Your task to perform on an android device: Open Google Chrome and click the shortcut for Amazon.com Image 0: 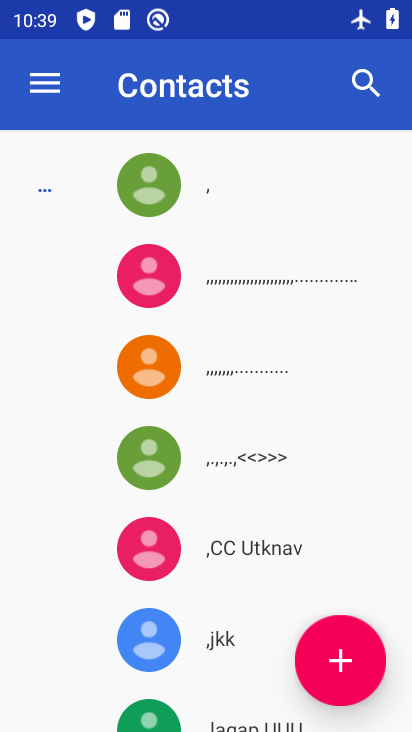
Step 0: press back button
Your task to perform on an android device: Open Google Chrome and click the shortcut for Amazon.com Image 1: 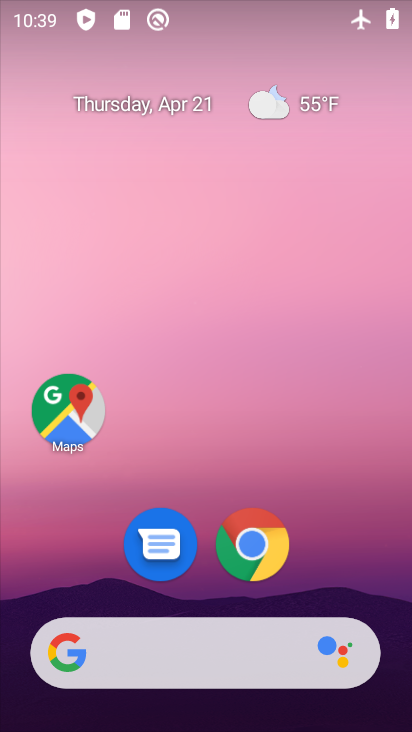
Step 1: drag from (327, 557) to (208, 45)
Your task to perform on an android device: Open Google Chrome and click the shortcut for Amazon.com Image 2: 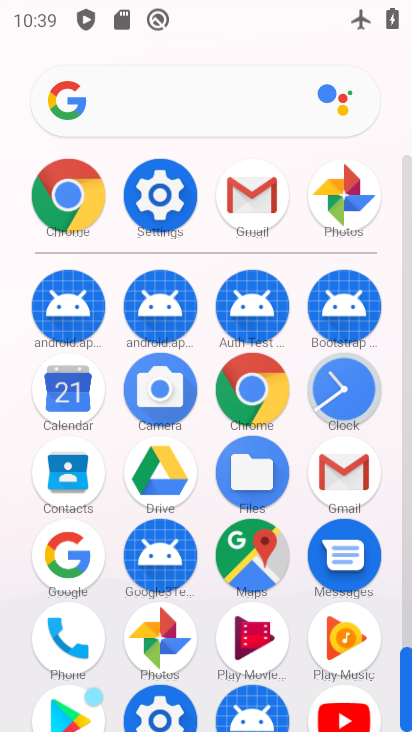
Step 2: drag from (9, 586) to (5, 343)
Your task to perform on an android device: Open Google Chrome and click the shortcut for Amazon.com Image 3: 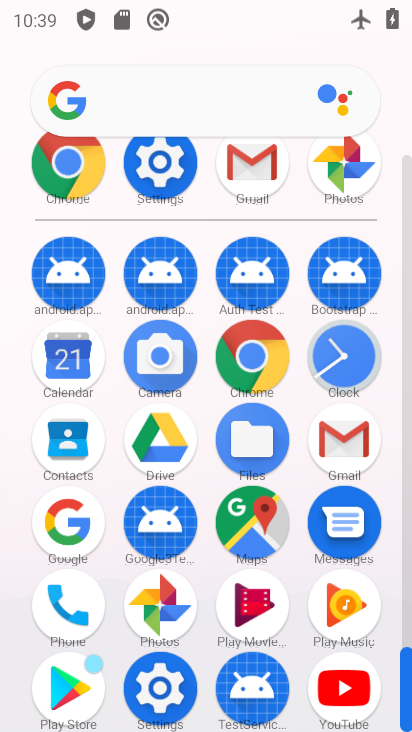
Step 3: click (65, 164)
Your task to perform on an android device: Open Google Chrome and click the shortcut for Amazon.com Image 4: 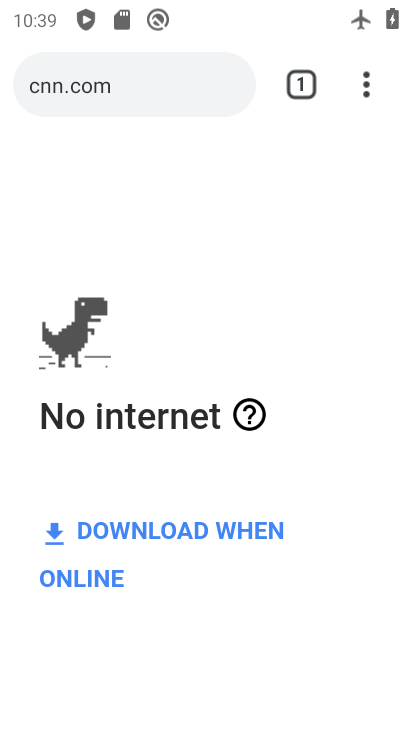
Step 4: type "Amazon.com"
Your task to perform on an android device: Open Google Chrome and click the shortcut for Amazon.com Image 5: 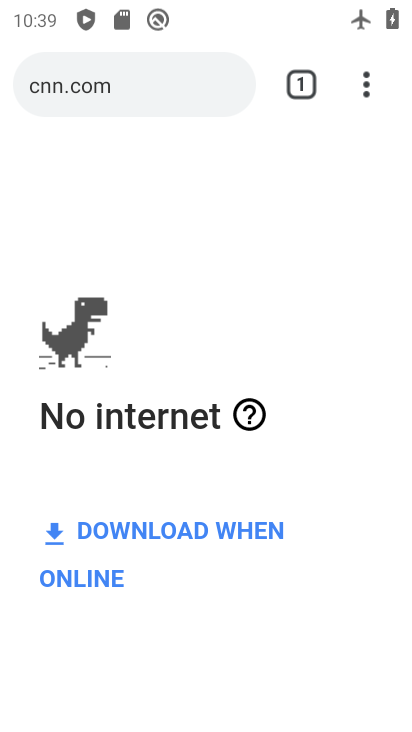
Step 5: type ""
Your task to perform on an android device: Open Google Chrome and click the shortcut for Amazon.com Image 6: 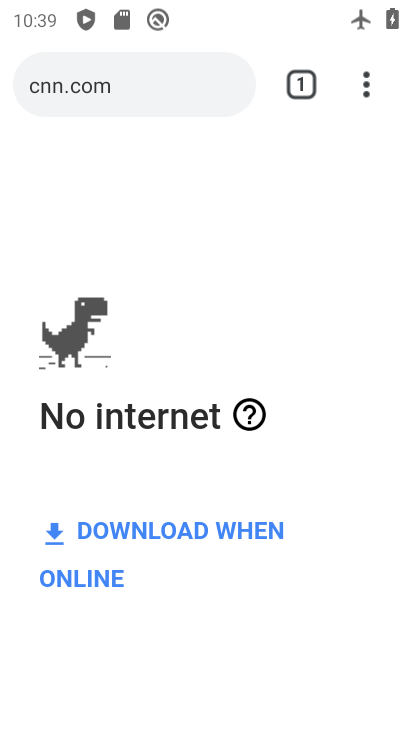
Step 6: click (154, 94)
Your task to perform on an android device: Open Google Chrome and click the shortcut for Amazon.com Image 7: 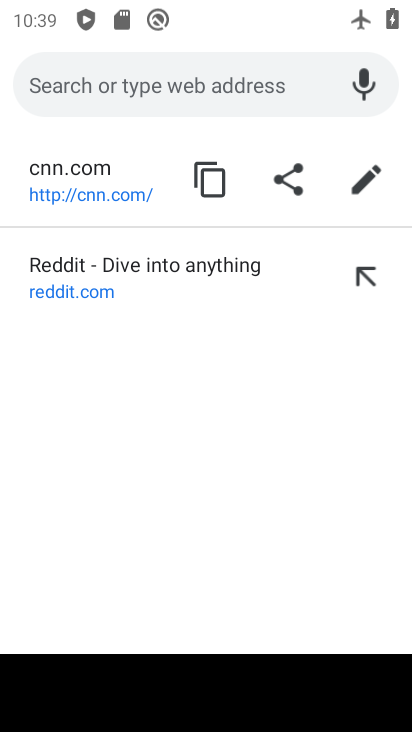
Step 7: type "Amazon.com"
Your task to perform on an android device: Open Google Chrome and click the shortcut for Amazon.com Image 8: 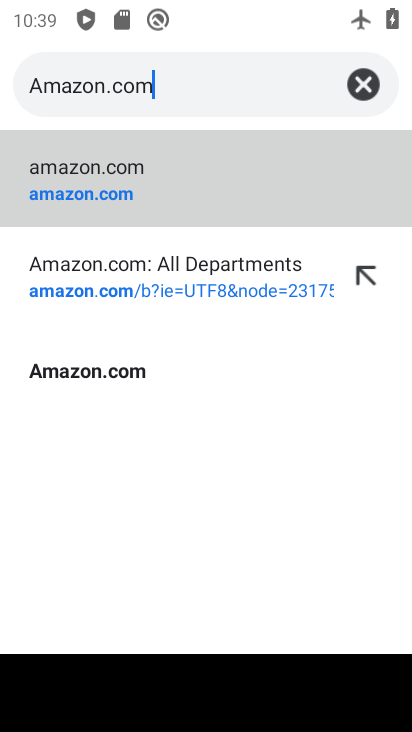
Step 8: type ""
Your task to perform on an android device: Open Google Chrome and click the shortcut for Amazon.com Image 9: 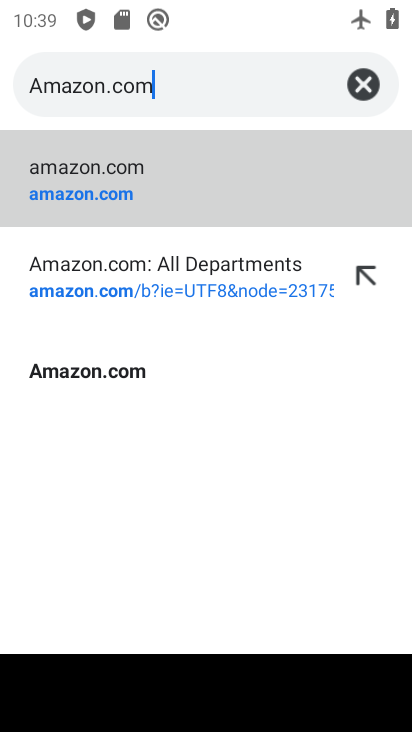
Step 9: click (121, 171)
Your task to perform on an android device: Open Google Chrome and click the shortcut for Amazon.com Image 10: 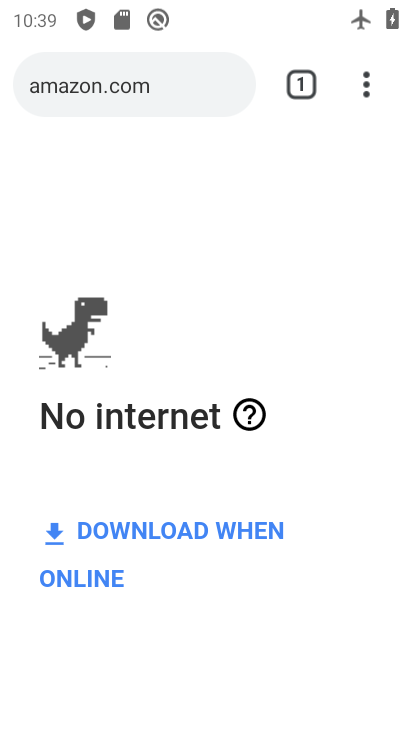
Step 10: drag from (368, 96) to (188, 433)
Your task to perform on an android device: Open Google Chrome and click the shortcut for Amazon.com Image 11: 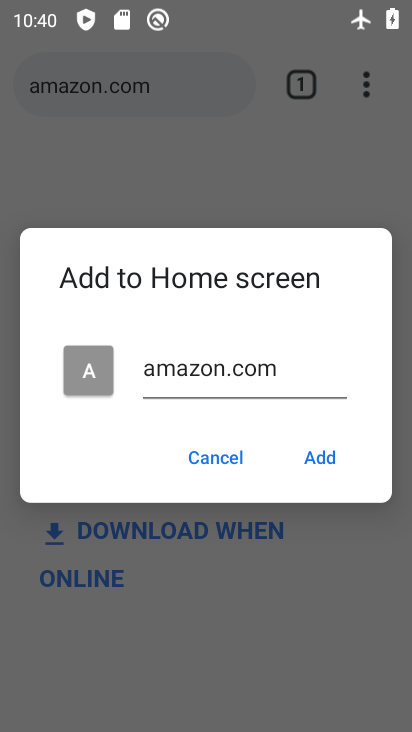
Step 11: click (316, 452)
Your task to perform on an android device: Open Google Chrome and click the shortcut for Amazon.com Image 12: 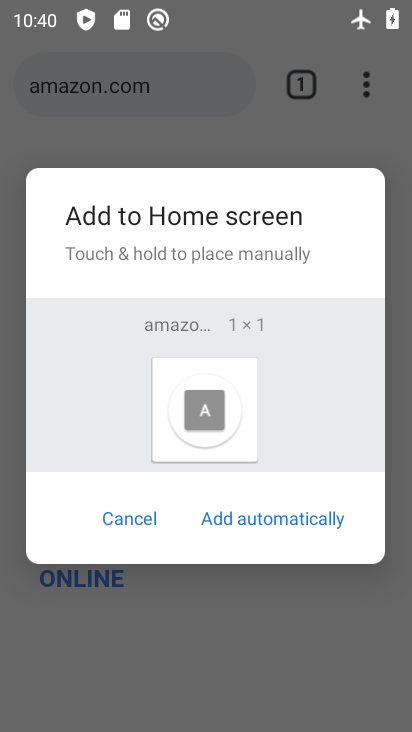
Step 12: click (271, 503)
Your task to perform on an android device: Open Google Chrome and click the shortcut for Amazon.com Image 13: 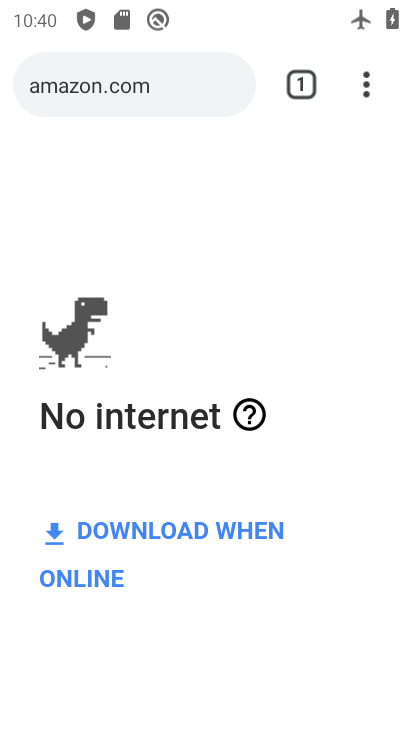
Step 13: task complete